Your task to perform on an android device: What is the recent news? Image 0: 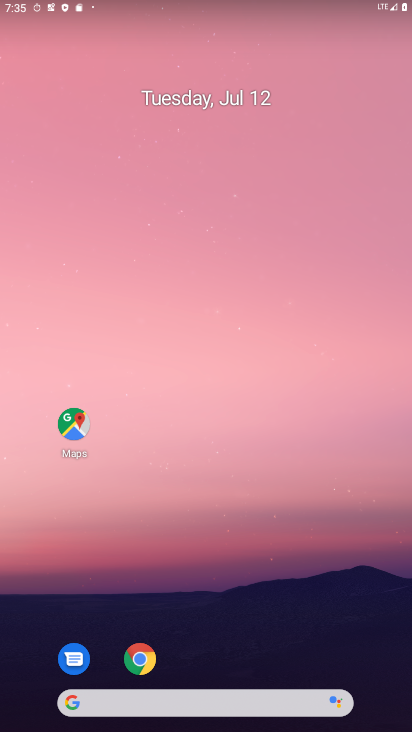
Step 0: drag from (361, 691) to (213, 37)
Your task to perform on an android device: What is the recent news? Image 1: 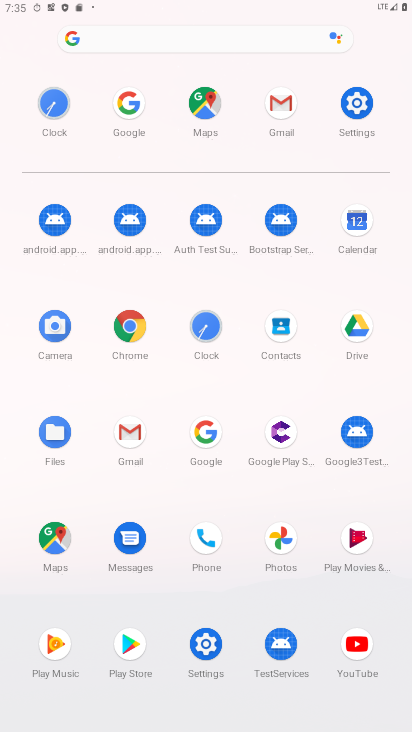
Step 1: click (200, 430)
Your task to perform on an android device: What is the recent news? Image 2: 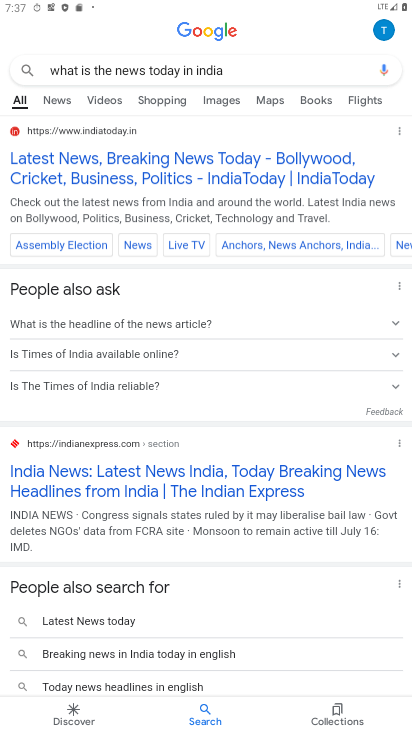
Step 2: press back button
Your task to perform on an android device: What is the recent news? Image 3: 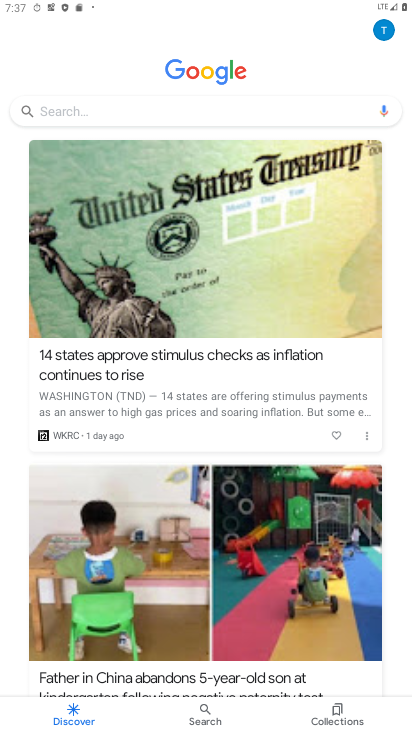
Step 3: click (128, 104)
Your task to perform on an android device: What is the recent news? Image 4: 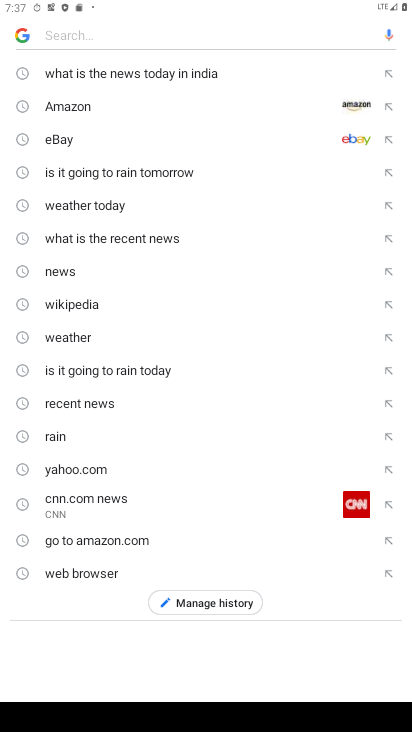
Step 4: type "What is the recent news?"
Your task to perform on an android device: What is the recent news? Image 5: 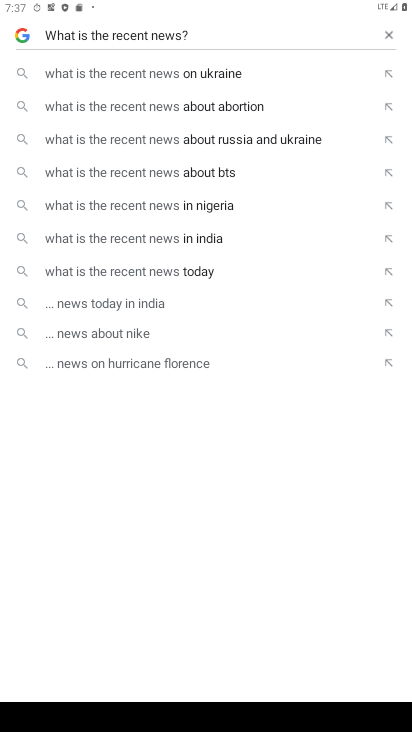
Step 5: click (158, 247)
Your task to perform on an android device: What is the recent news? Image 6: 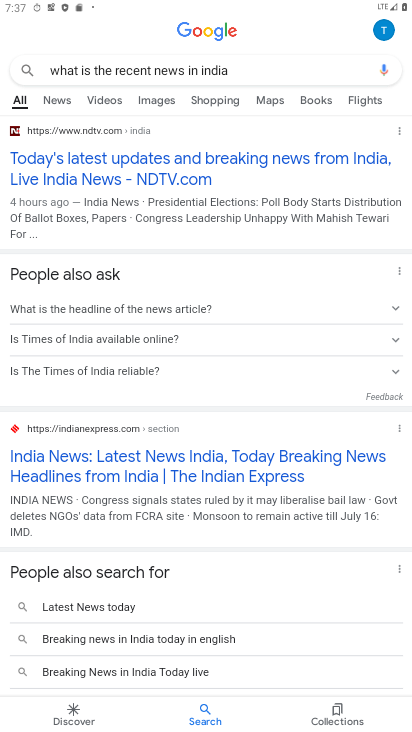
Step 6: task complete